Your task to perform on an android device: What's on my calendar today? Image 0: 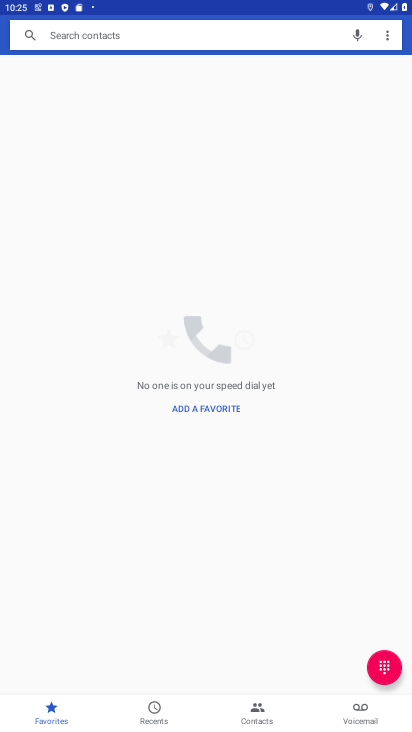
Step 0: press home button
Your task to perform on an android device: What's on my calendar today? Image 1: 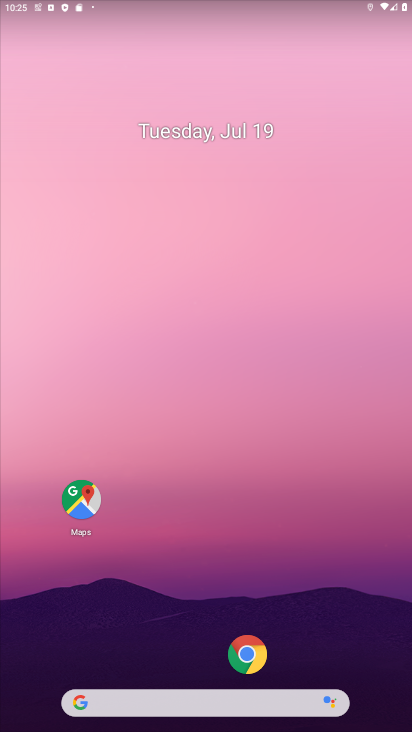
Step 1: click (188, 130)
Your task to perform on an android device: What's on my calendar today? Image 2: 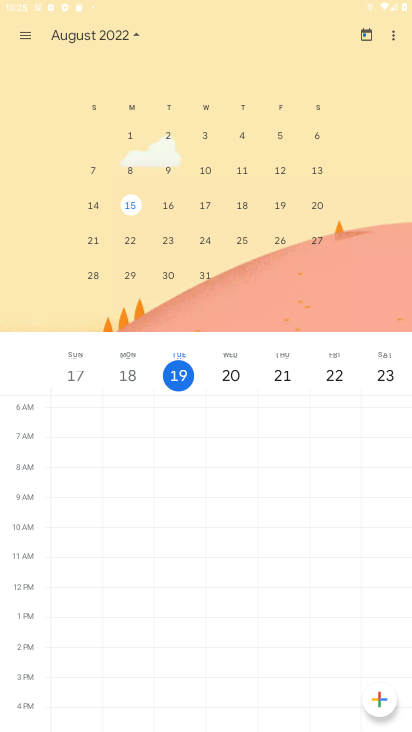
Step 2: drag from (24, 177) to (391, 161)
Your task to perform on an android device: What's on my calendar today? Image 3: 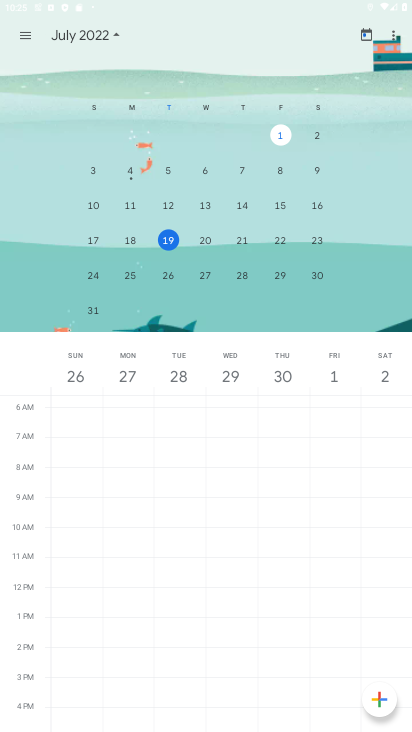
Step 3: click (179, 236)
Your task to perform on an android device: What's on my calendar today? Image 4: 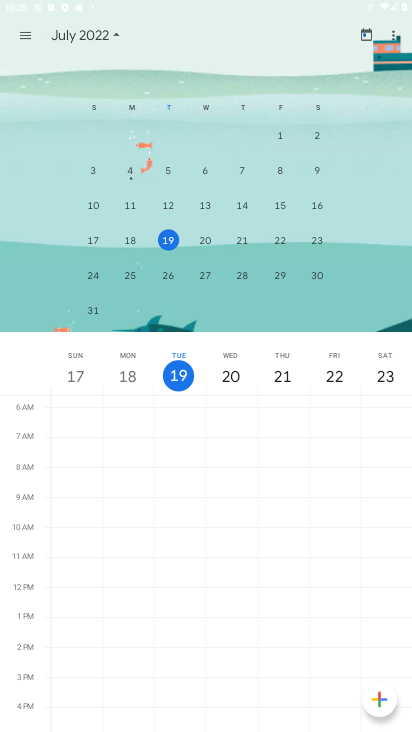
Step 4: task complete